Your task to perform on an android device: change your default location settings in chrome Image 0: 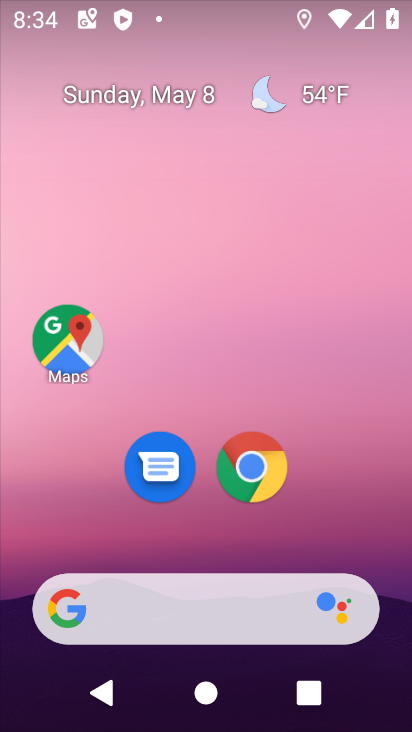
Step 0: click (249, 469)
Your task to perform on an android device: change your default location settings in chrome Image 1: 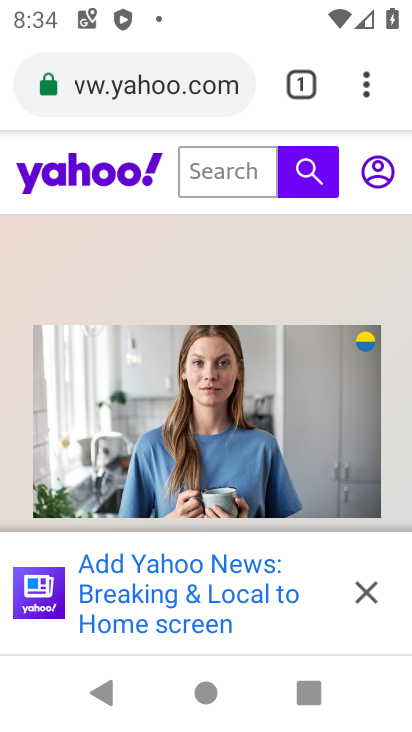
Step 1: click (365, 89)
Your task to perform on an android device: change your default location settings in chrome Image 2: 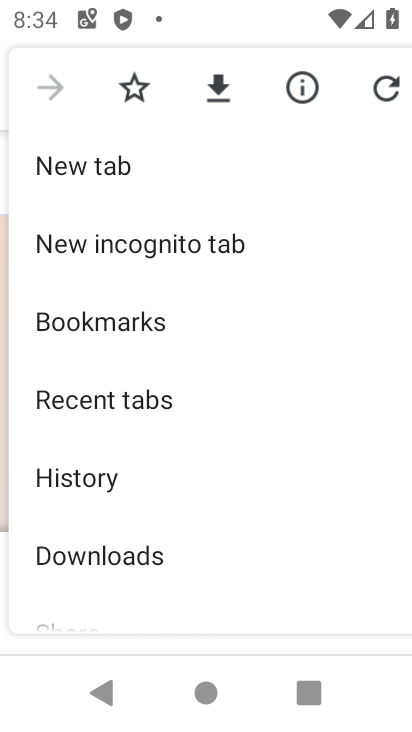
Step 2: drag from (200, 580) to (299, 172)
Your task to perform on an android device: change your default location settings in chrome Image 3: 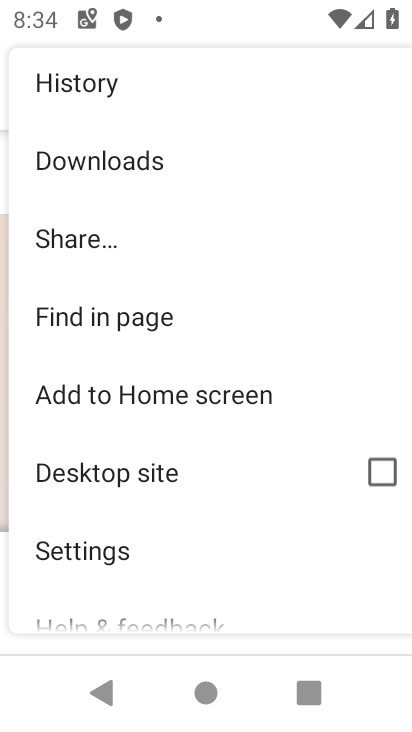
Step 3: click (94, 543)
Your task to perform on an android device: change your default location settings in chrome Image 4: 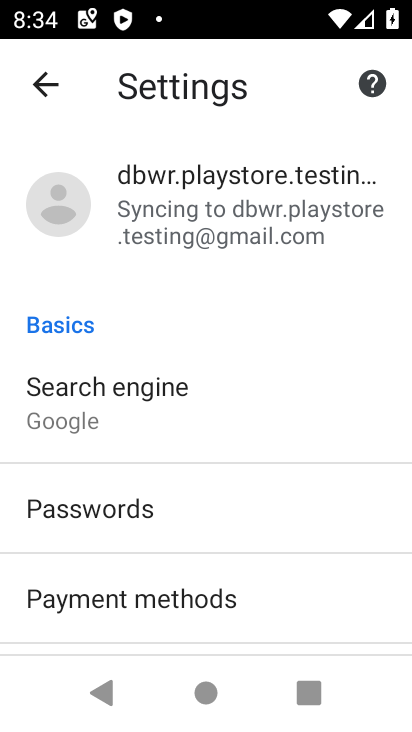
Step 4: drag from (285, 617) to (287, 219)
Your task to perform on an android device: change your default location settings in chrome Image 5: 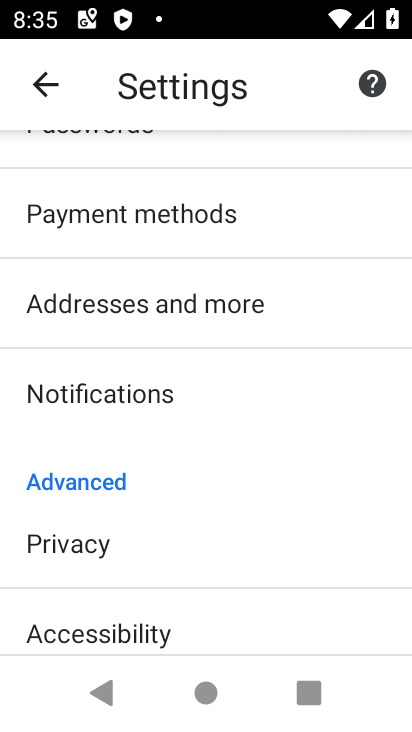
Step 5: drag from (232, 601) to (312, 214)
Your task to perform on an android device: change your default location settings in chrome Image 6: 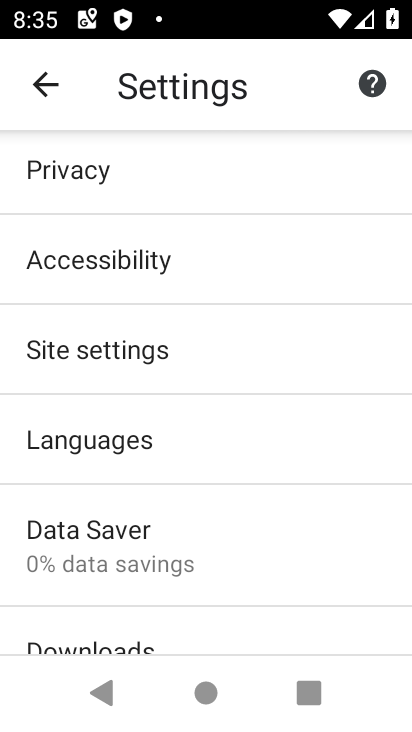
Step 6: click (80, 362)
Your task to perform on an android device: change your default location settings in chrome Image 7: 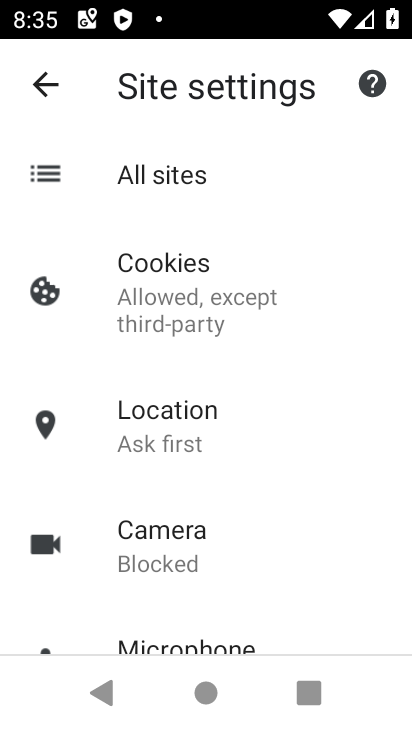
Step 7: click (161, 427)
Your task to perform on an android device: change your default location settings in chrome Image 8: 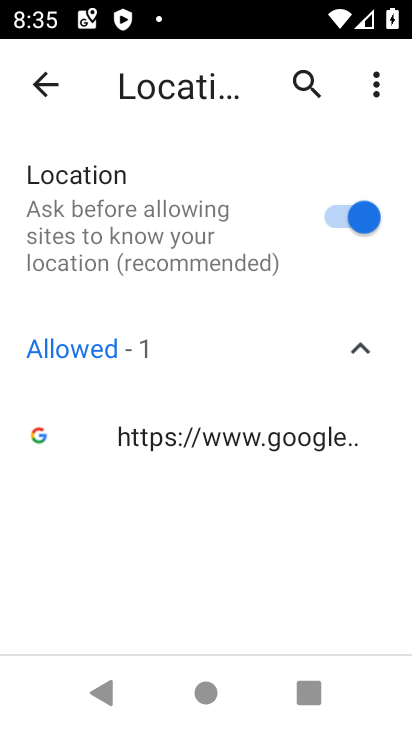
Step 8: click (328, 219)
Your task to perform on an android device: change your default location settings in chrome Image 9: 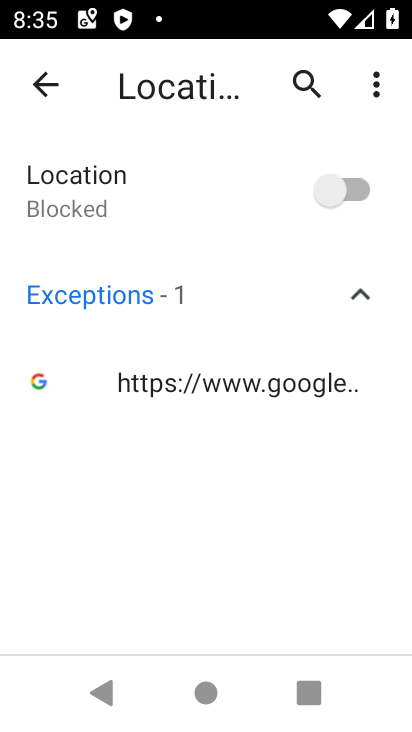
Step 9: task complete